Your task to perform on an android device: allow cookies in the chrome app Image 0: 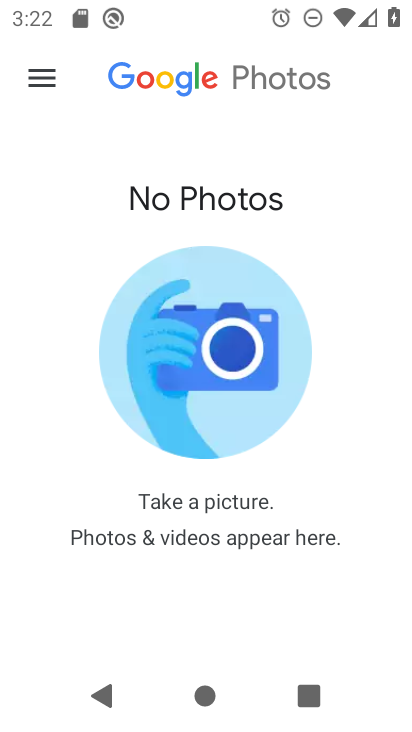
Step 0: press home button
Your task to perform on an android device: allow cookies in the chrome app Image 1: 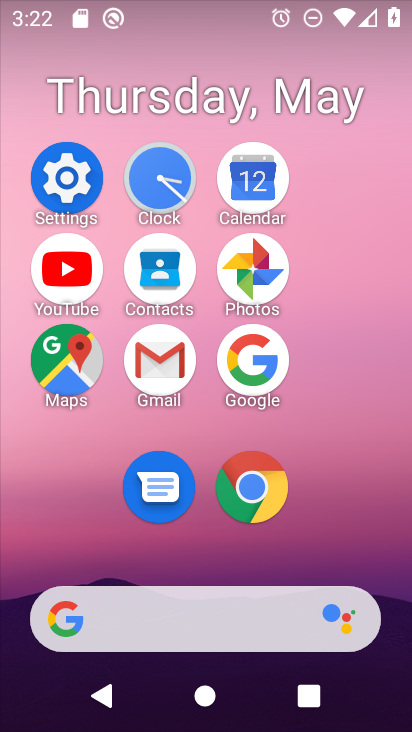
Step 1: click (272, 487)
Your task to perform on an android device: allow cookies in the chrome app Image 2: 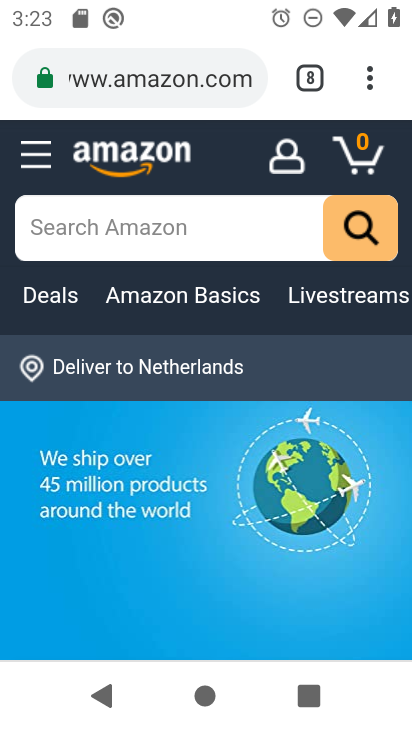
Step 2: click (376, 79)
Your task to perform on an android device: allow cookies in the chrome app Image 3: 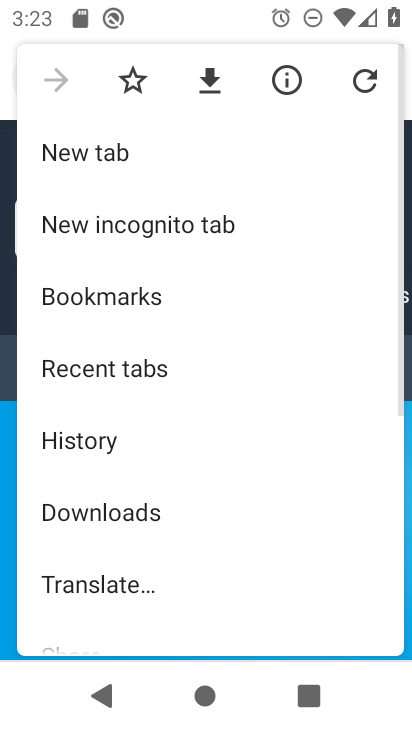
Step 3: drag from (244, 549) to (237, 126)
Your task to perform on an android device: allow cookies in the chrome app Image 4: 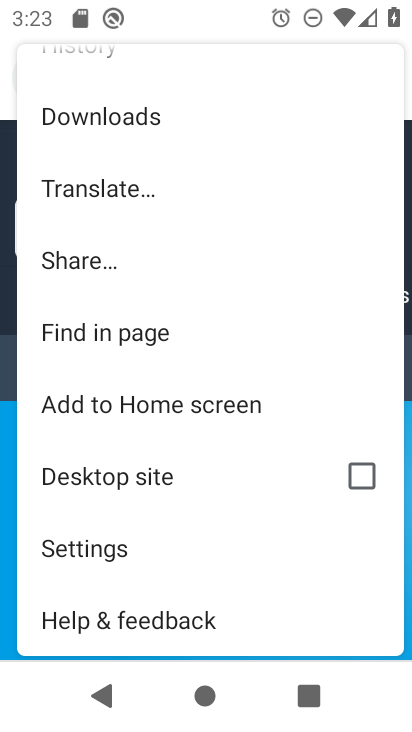
Step 4: click (115, 531)
Your task to perform on an android device: allow cookies in the chrome app Image 5: 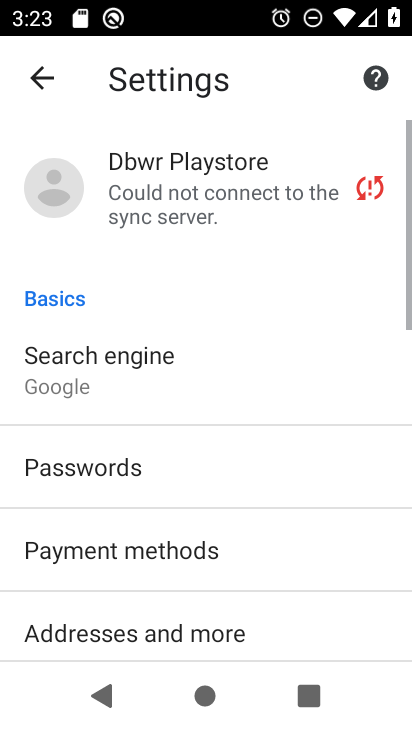
Step 5: drag from (160, 586) to (247, 118)
Your task to perform on an android device: allow cookies in the chrome app Image 6: 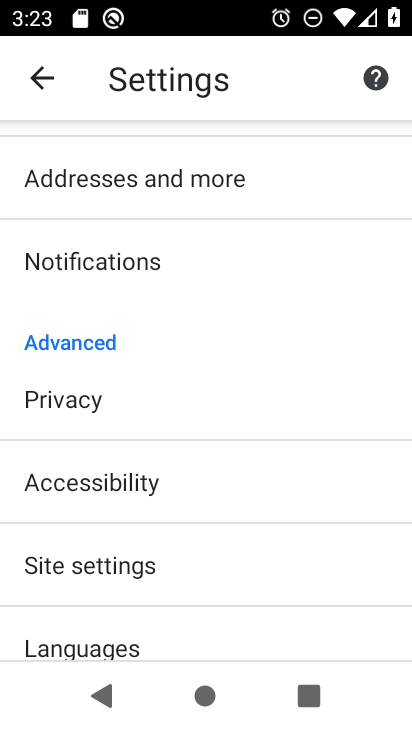
Step 6: drag from (195, 539) to (207, 130)
Your task to perform on an android device: allow cookies in the chrome app Image 7: 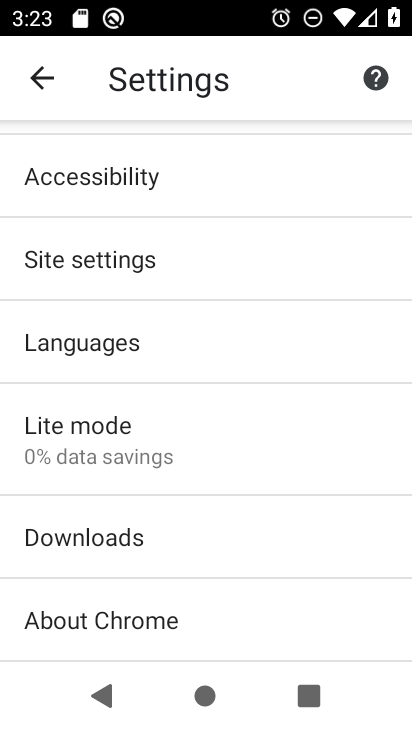
Step 7: drag from (200, 554) to (210, 480)
Your task to perform on an android device: allow cookies in the chrome app Image 8: 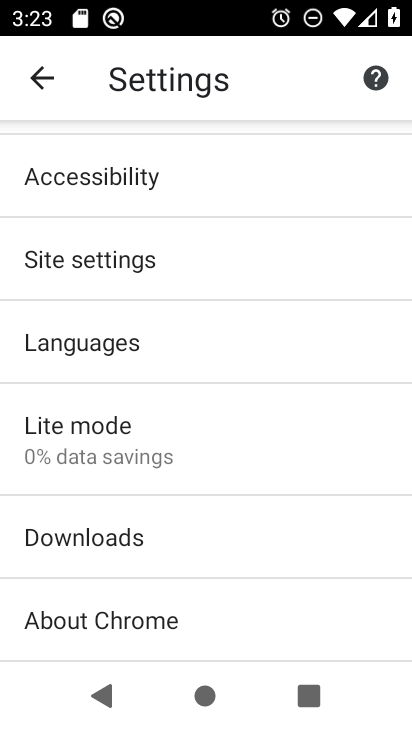
Step 8: click (275, 232)
Your task to perform on an android device: allow cookies in the chrome app Image 9: 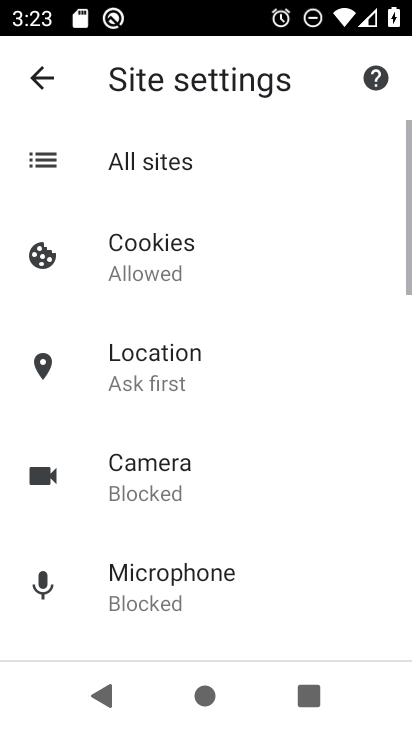
Step 9: click (282, 264)
Your task to perform on an android device: allow cookies in the chrome app Image 10: 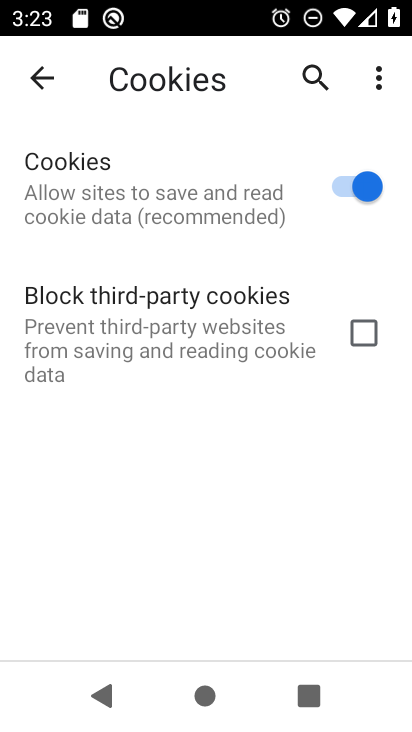
Step 10: task complete